Your task to perform on an android device: Open Google Image 0: 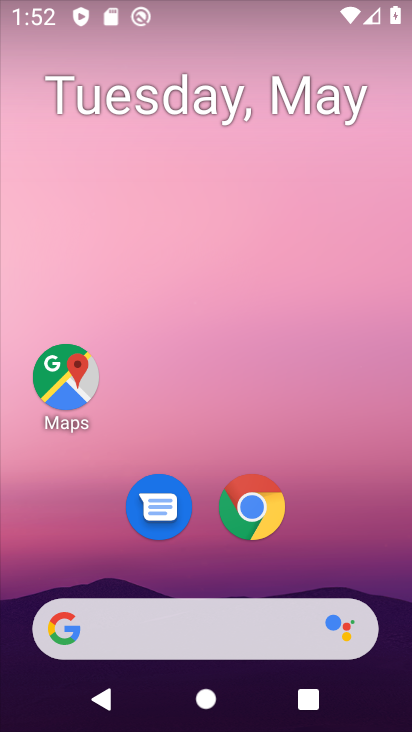
Step 0: drag from (160, 600) to (278, 131)
Your task to perform on an android device: Open Google Image 1: 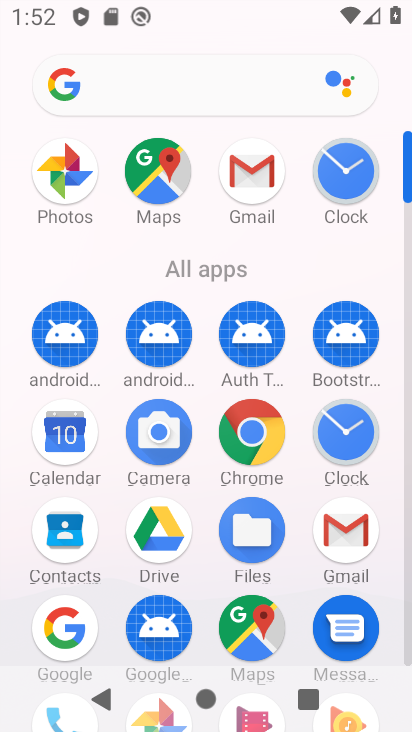
Step 1: click (34, 636)
Your task to perform on an android device: Open Google Image 2: 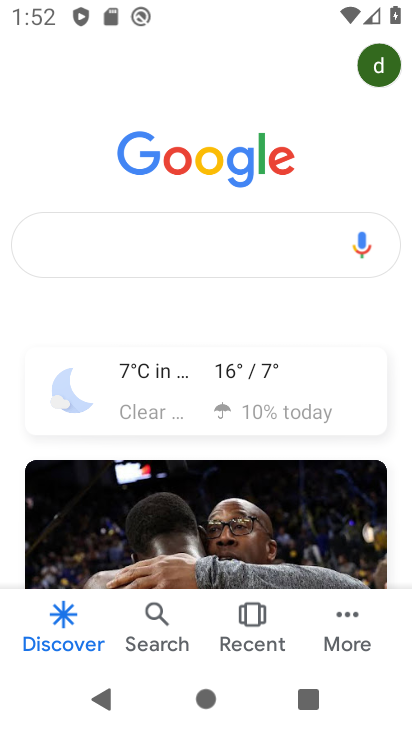
Step 2: task complete